Your task to perform on an android device: install app "Life360: Find Family & Friends" Image 0: 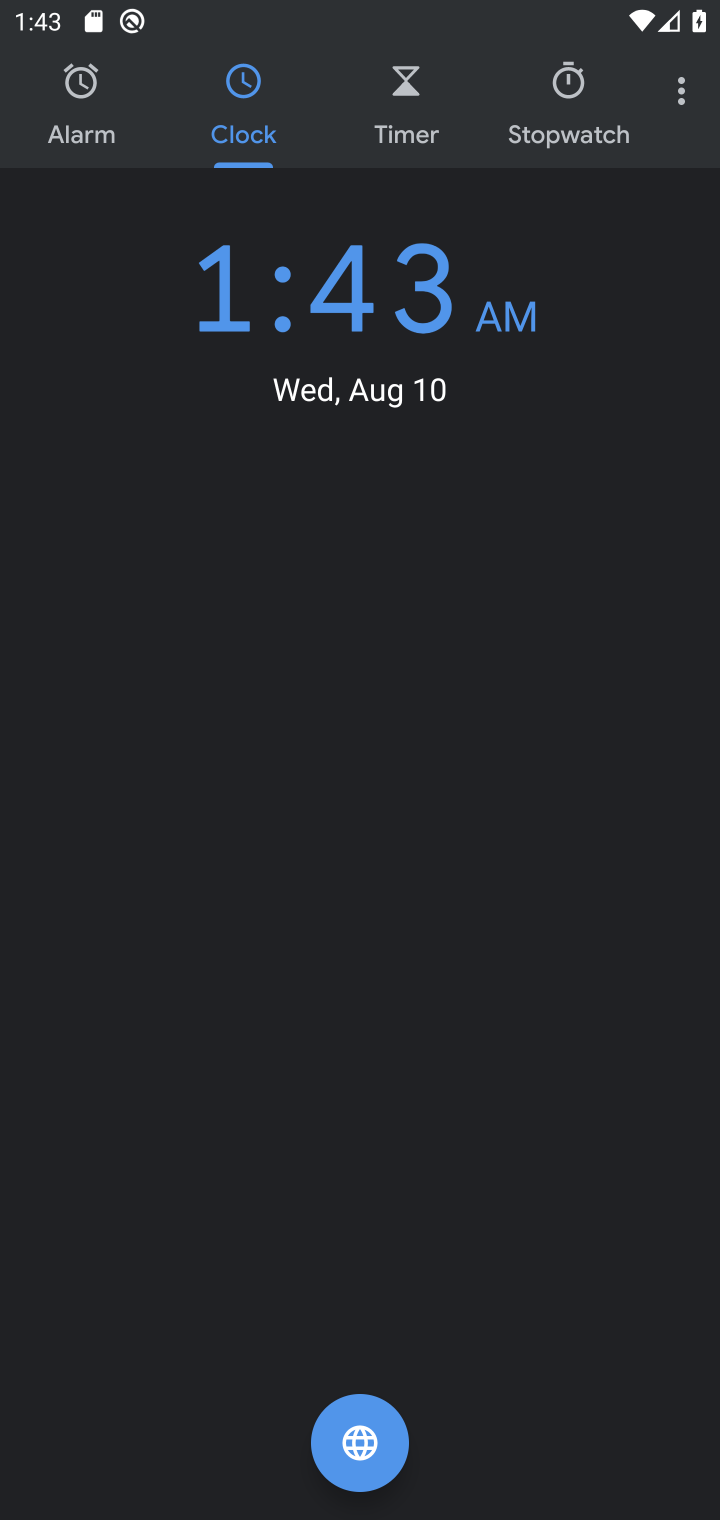
Step 0: press home button
Your task to perform on an android device: install app "Life360: Find Family & Friends" Image 1: 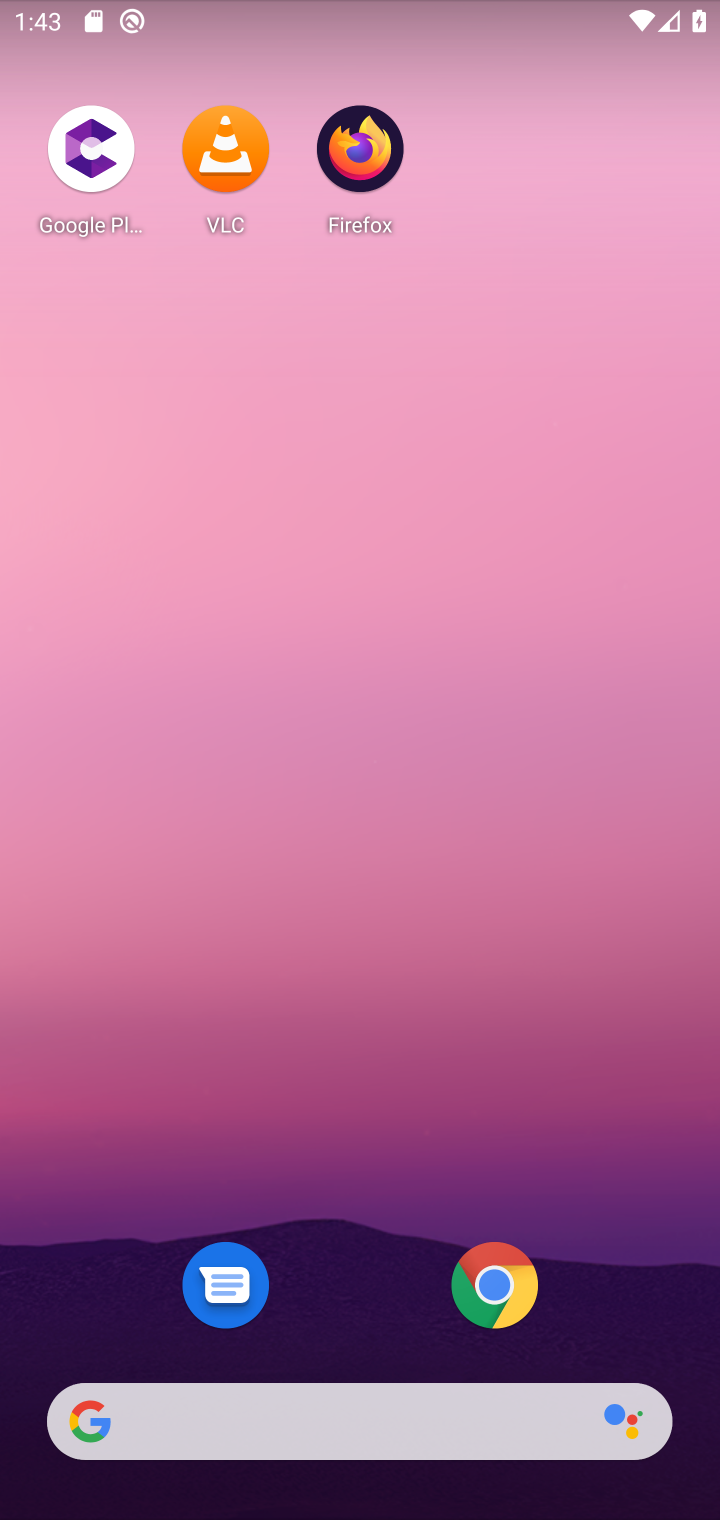
Step 1: drag from (393, 1065) to (247, 172)
Your task to perform on an android device: install app "Life360: Find Family & Friends" Image 2: 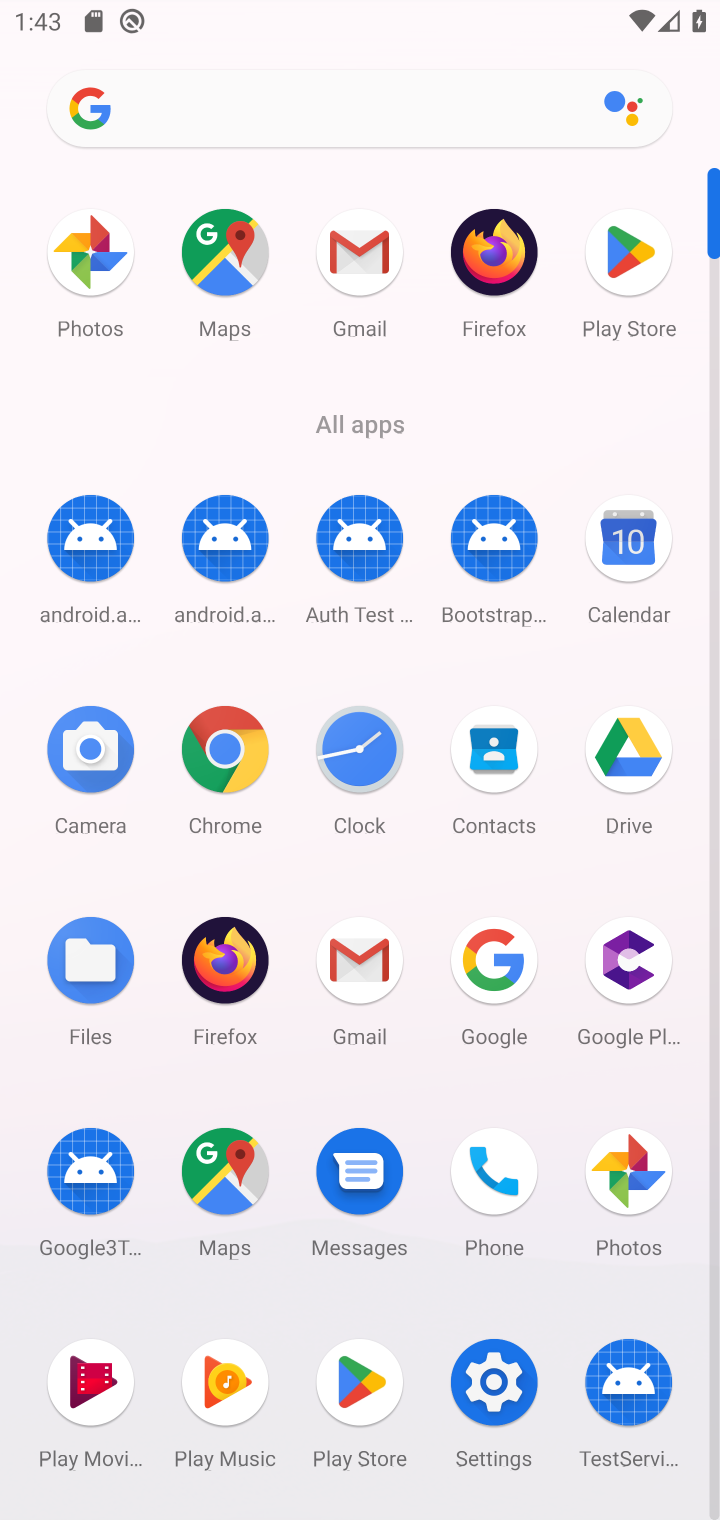
Step 2: click (341, 1384)
Your task to perform on an android device: install app "Life360: Find Family & Friends" Image 3: 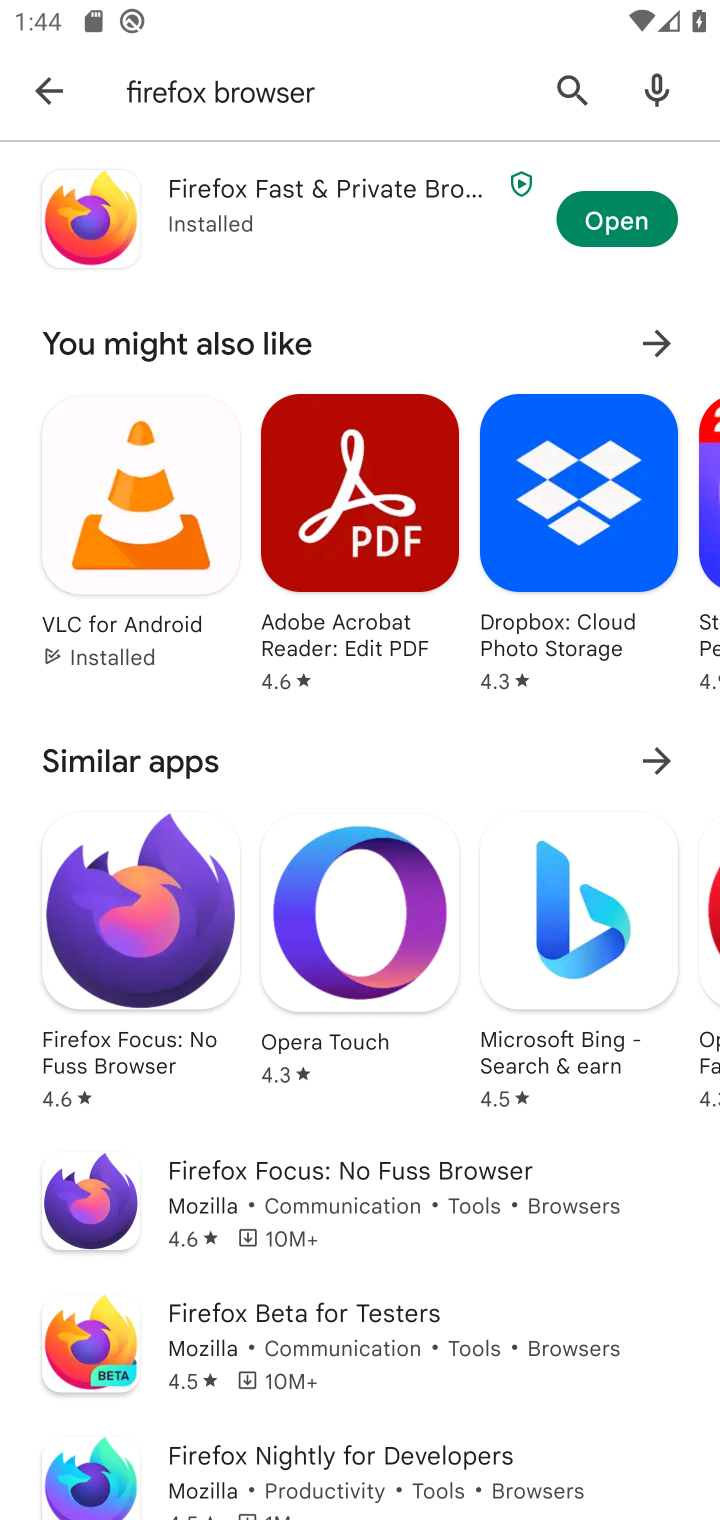
Step 3: click (566, 83)
Your task to perform on an android device: install app "Life360: Find Family & Friends" Image 4: 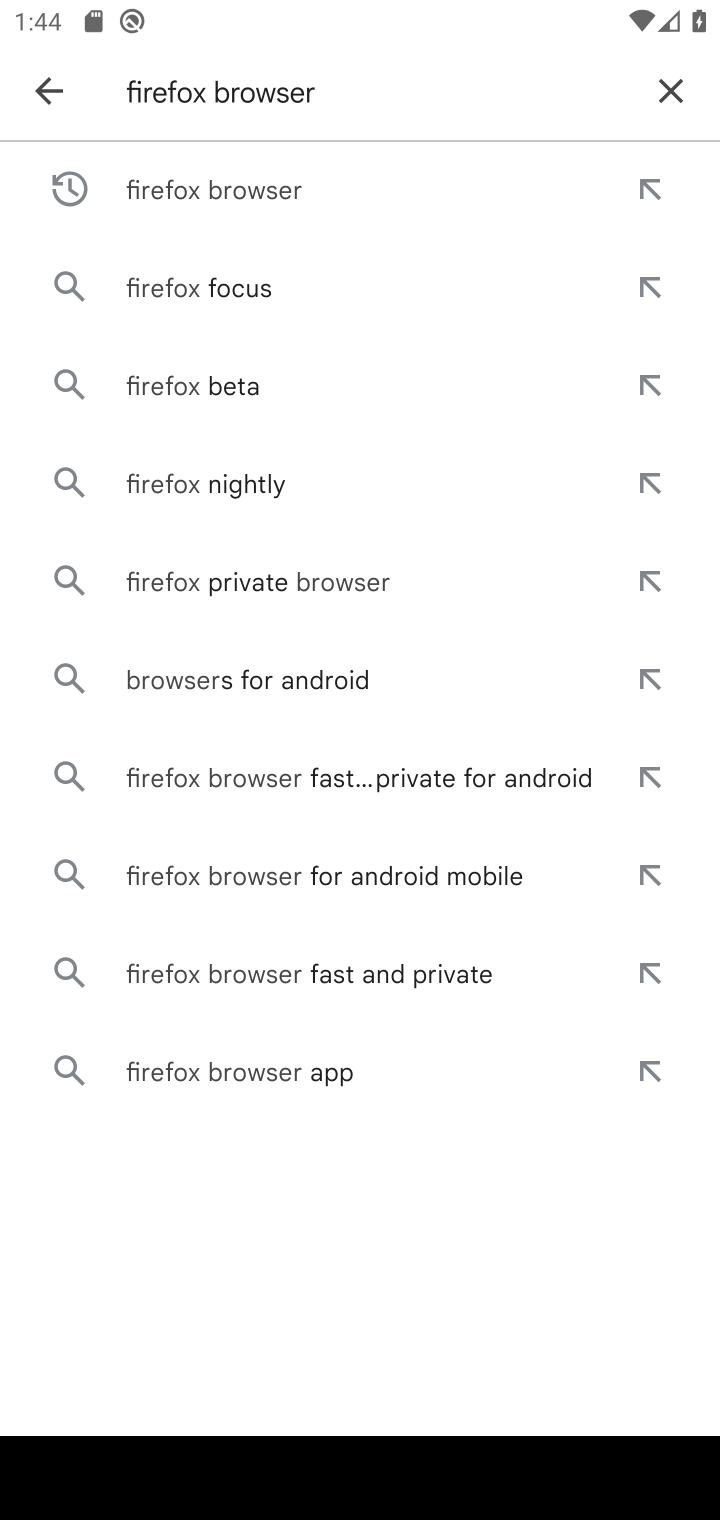
Step 4: click (670, 93)
Your task to perform on an android device: install app "Life360: Find Family & Friends" Image 5: 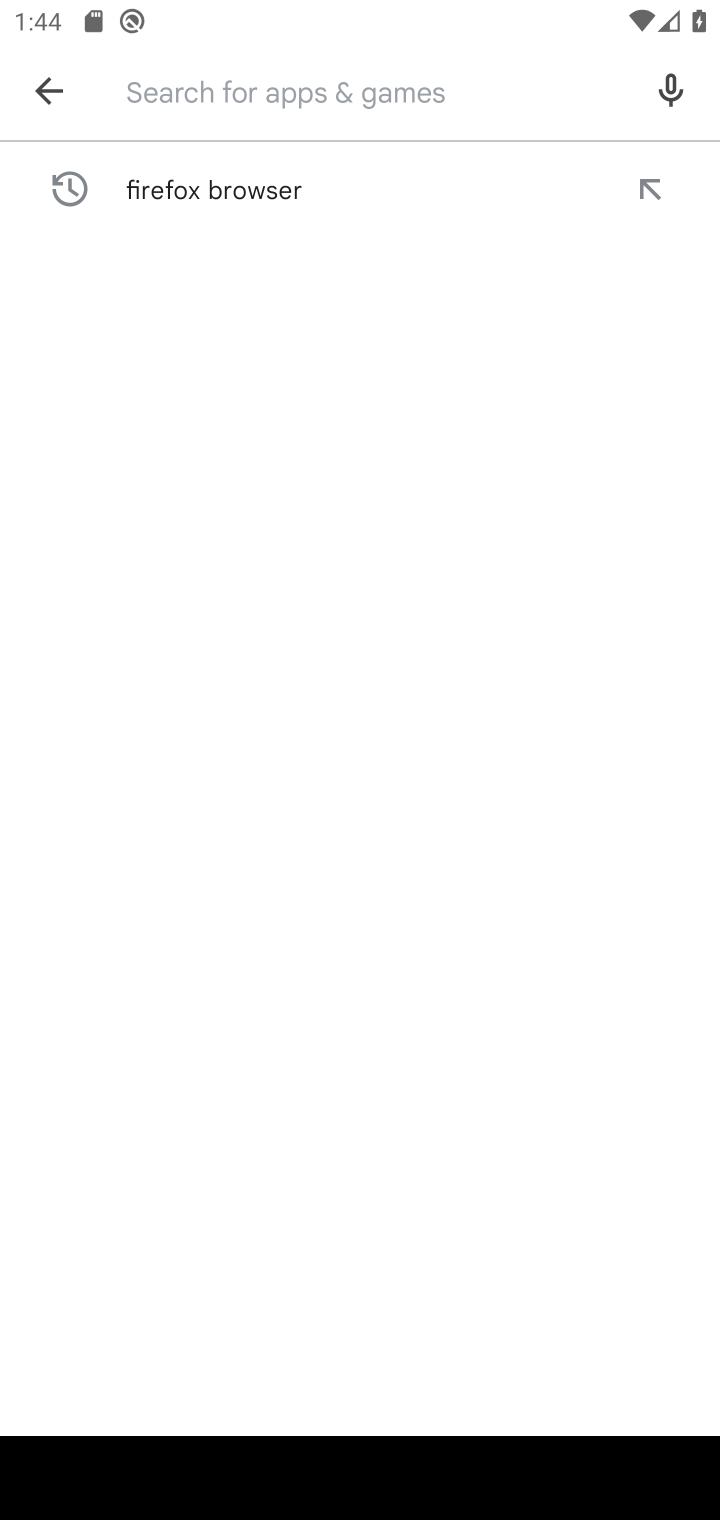
Step 5: type "life360"
Your task to perform on an android device: install app "Life360: Find Family & Friends" Image 6: 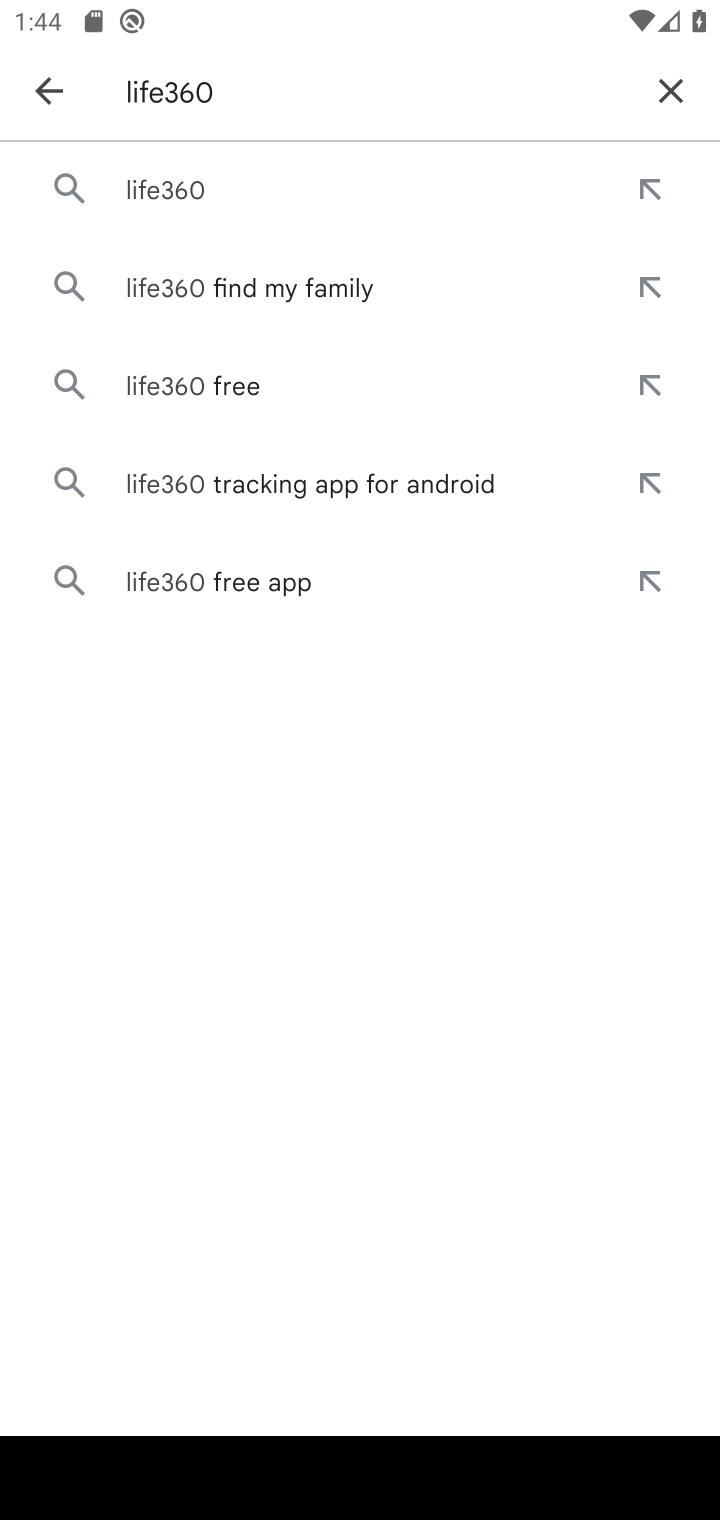
Step 6: click (176, 199)
Your task to perform on an android device: install app "Life360: Find Family & Friends" Image 7: 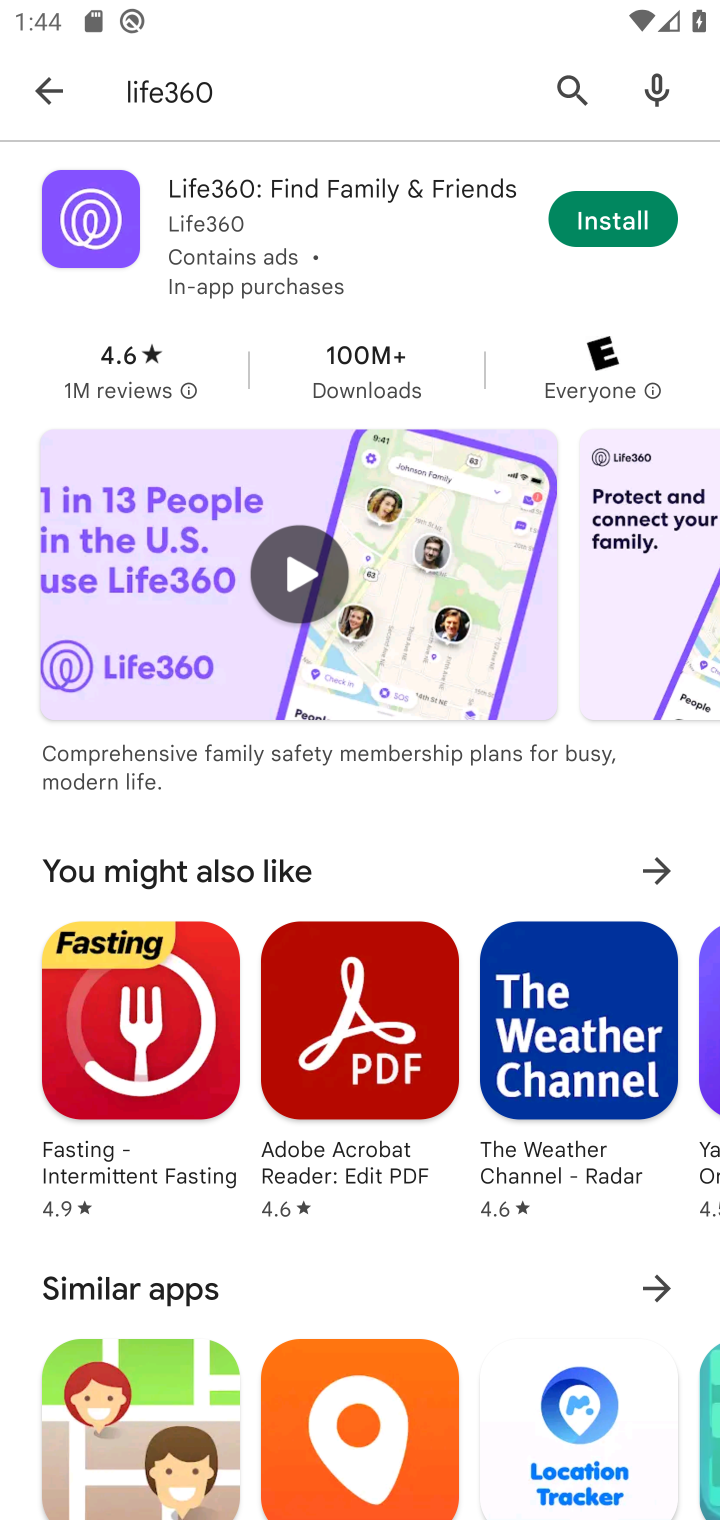
Step 7: click (623, 220)
Your task to perform on an android device: install app "Life360: Find Family & Friends" Image 8: 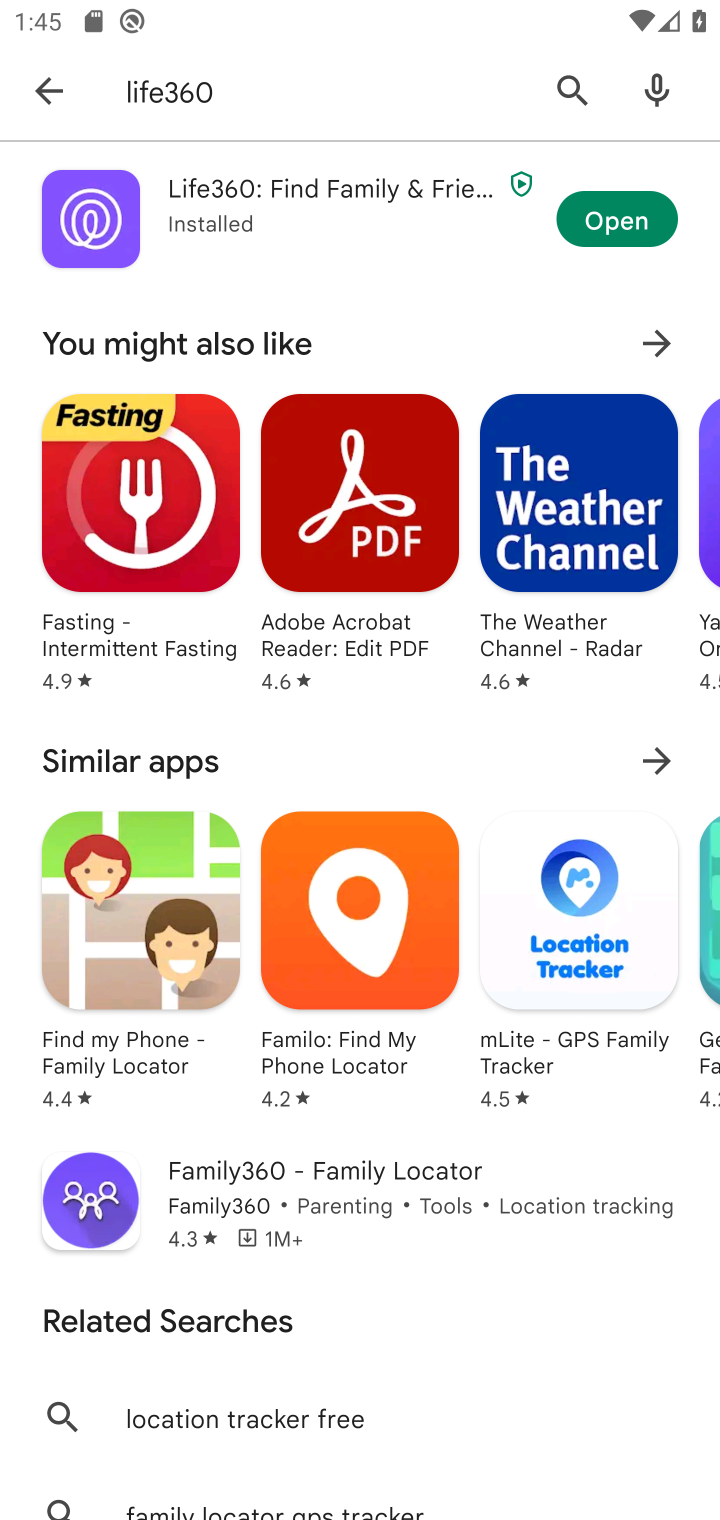
Step 8: task complete